Your task to perform on an android device: visit the assistant section in the google photos Image 0: 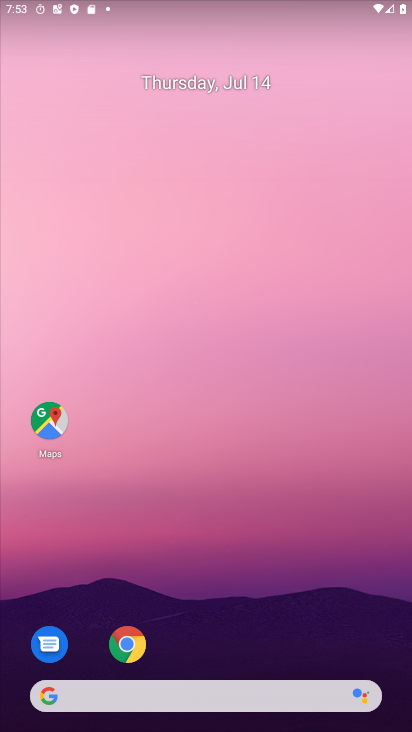
Step 0: drag from (277, 691) to (372, 144)
Your task to perform on an android device: visit the assistant section in the google photos Image 1: 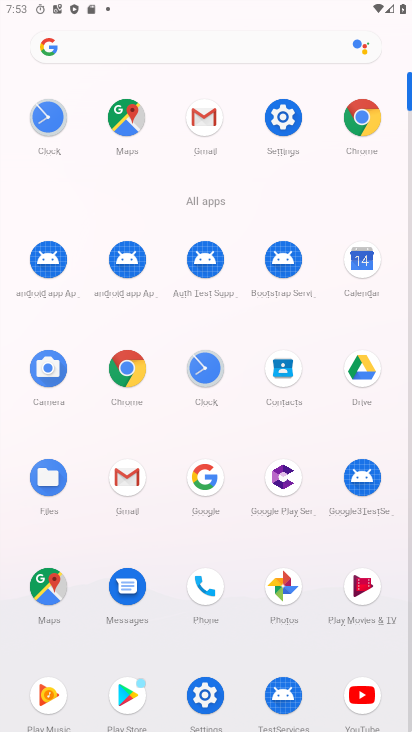
Step 1: click (290, 585)
Your task to perform on an android device: visit the assistant section in the google photos Image 2: 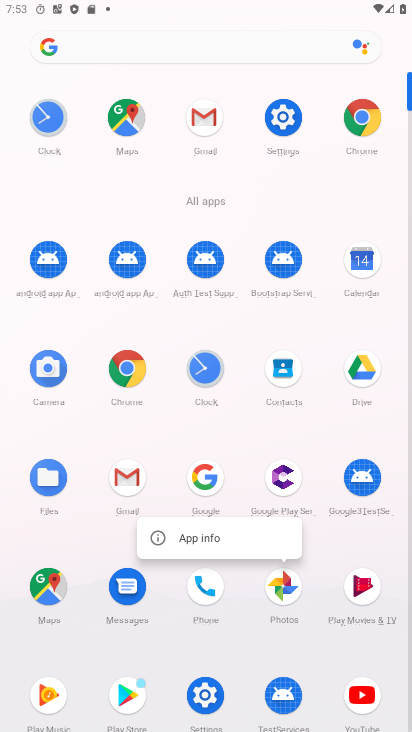
Step 2: click (280, 587)
Your task to perform on an android device: visit the assistant section in the google photos Image 3: 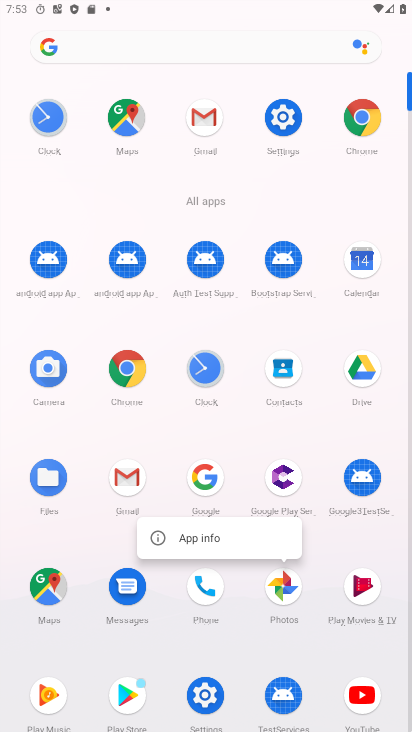
Step 3: click (280, 588)
Your task to perform on an android device: visit the assistant section in the google photos Image 4: 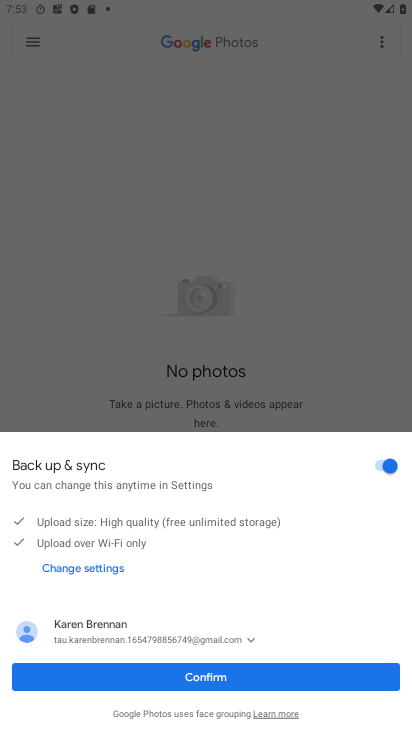
Step 4: click (255, 682)
Your task to perform on an android device: visit the assistant section in the google photos Image 5: 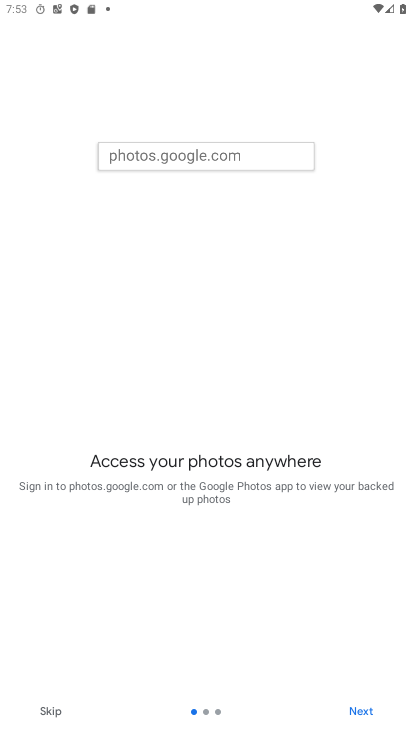
Step 5: click (362, 713)
Your task to perform on an android device: visit the assistant section in the google photos Image 6: 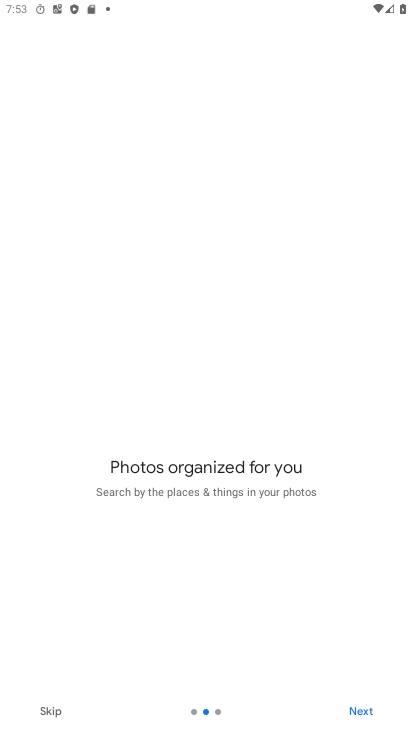
Step 6: click (362, 714)
Your task to perform on an android device: visit the assistant section in the google photos Image 7: 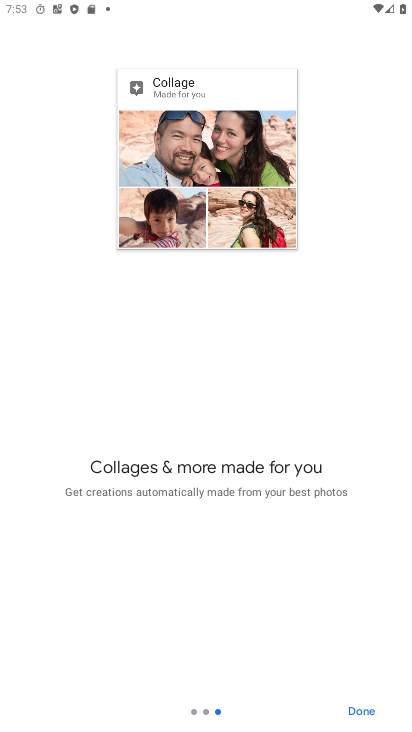
Step 7: click (369, 708)
Your task to perform on an android device: visit the assistant section in the google photos Image 8: 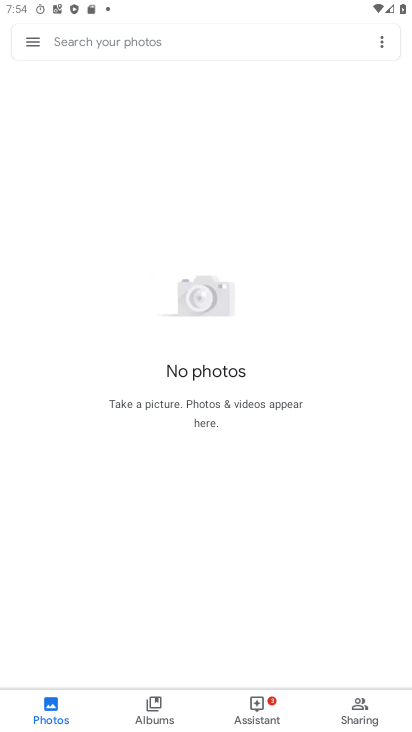
Step 8: click (273, 718)
Your task to perform on an android device: visit the assistant section in the google photos Image 9: 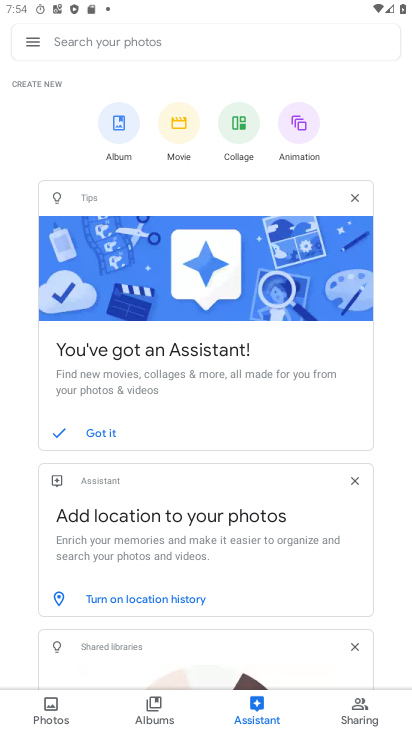
Step 9: task complete